Your task to perform on an android device: snooze an email in the gmail app Image 0: 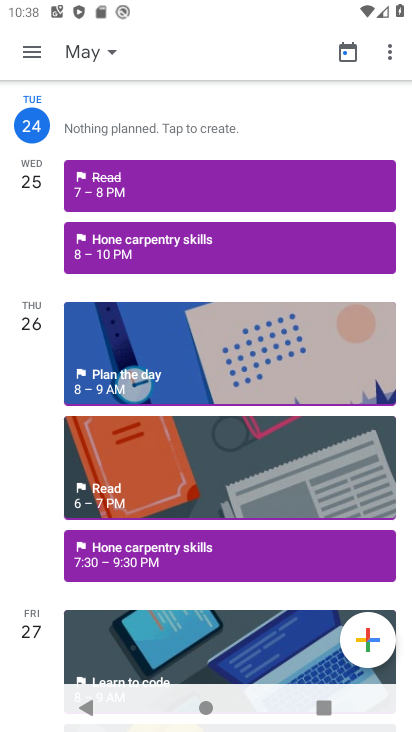
Step 0: click (27, 47)
Your task to perform on an android device: snooze an email in the gmail app Image 1: 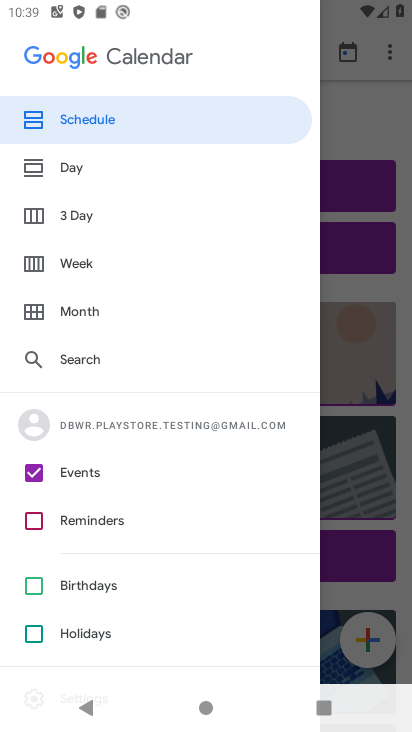
Step 1: drag from (228, 633) to (213, 377)
Your task to perform on an android device: snooze an email in the gmail app Image 2: 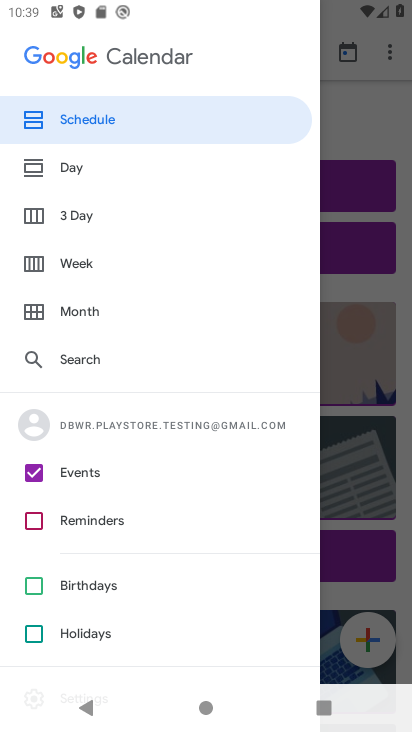
Step 2: press back button
Your task to perform on an android device: snooze an email in the gmail app Image 3: 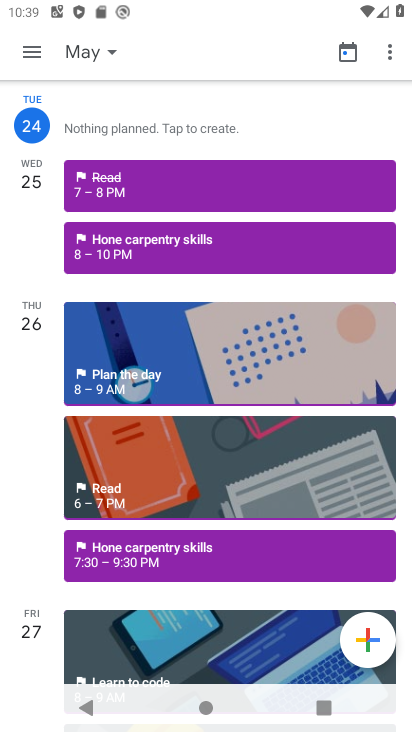
Step 3: press back button
Your task to perform on an android device: snooze an email in the gmail app Image 4: 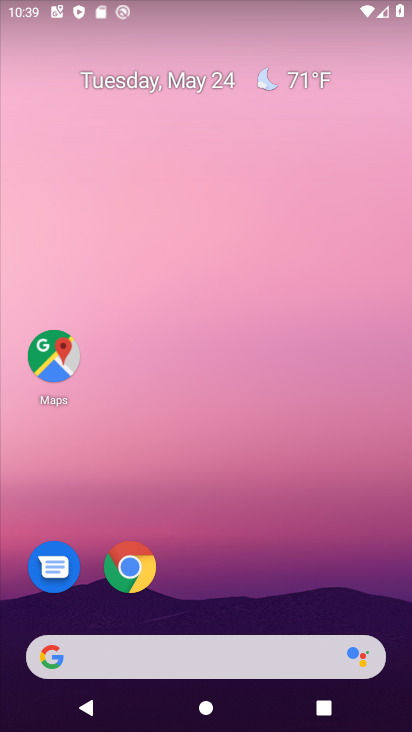
Step 4: drag from (391, 673) to (348, 223)
Your task to perform on an android device: snooze an email in the gmail app Image 5: 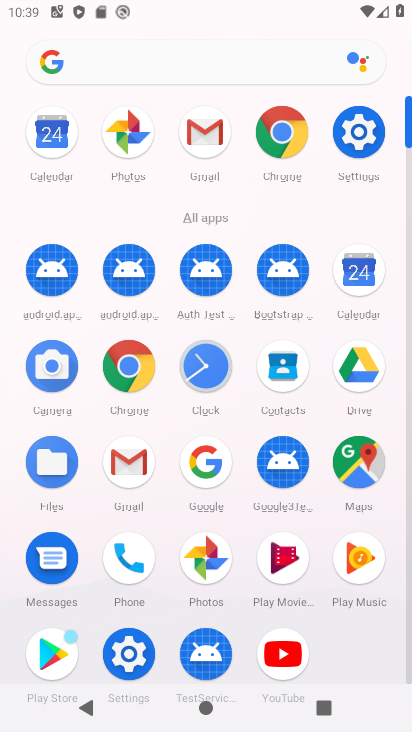
Step 5: click (120, 468)
Your task to perform on an android device: snooze an email in the gmail app Image 6: 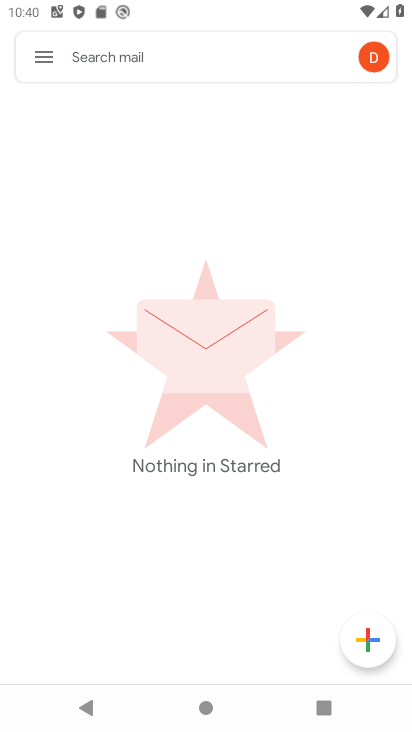
Step 6: click (50, 66)
Your task to perform on an android device: snooze an email in the gmail app Image 7: 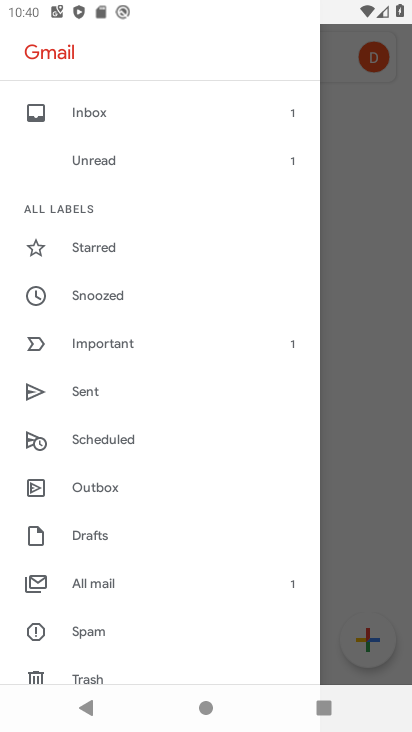
Step 7: click (84, 116)
Your task to perform on an android device: snooze an email in the gmail app Image 8: 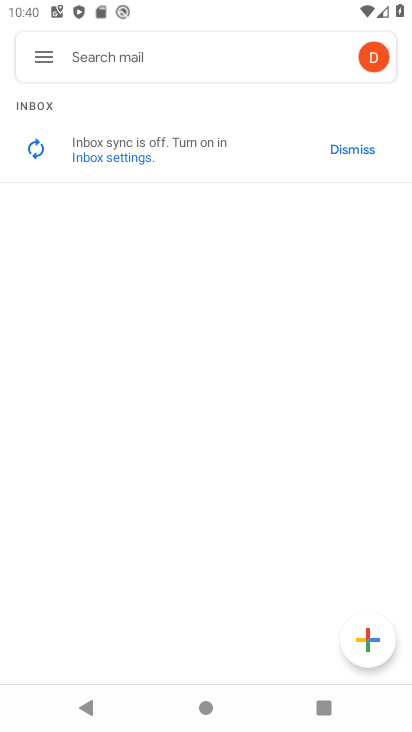
Step 8: task complete